Your task to perform on an android device: When is my next appointment? Image 0: 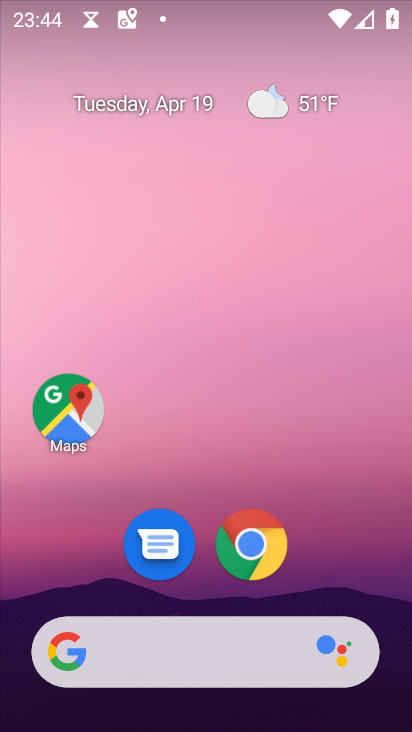
Step 0: drag from (336, 538) to (389, 156)
Your task to perform on an android device: When is my next appointment? Image 1: 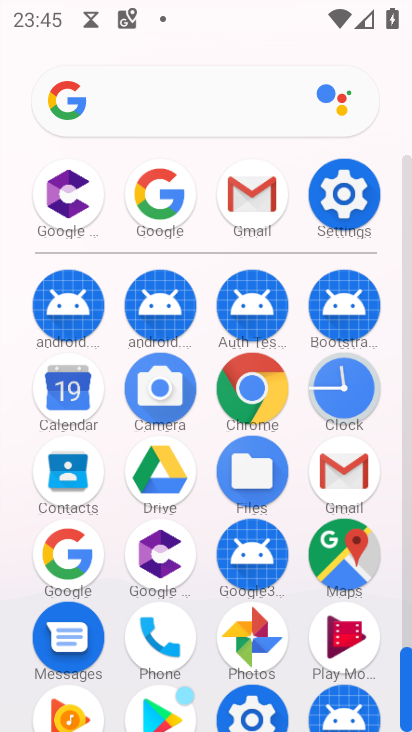
Step 1: click (65, 401)
Your task to perform on an android device: When is my next appointment? Image 2: 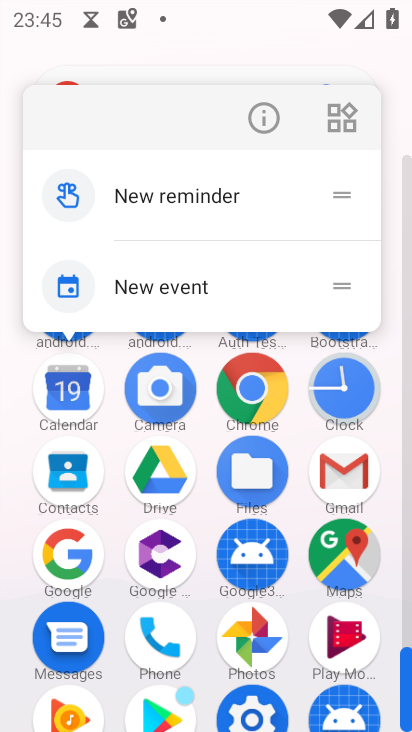
Step 2: click (65, 401)
Your task to perform on an android device: When is my next appointment? Image 3: 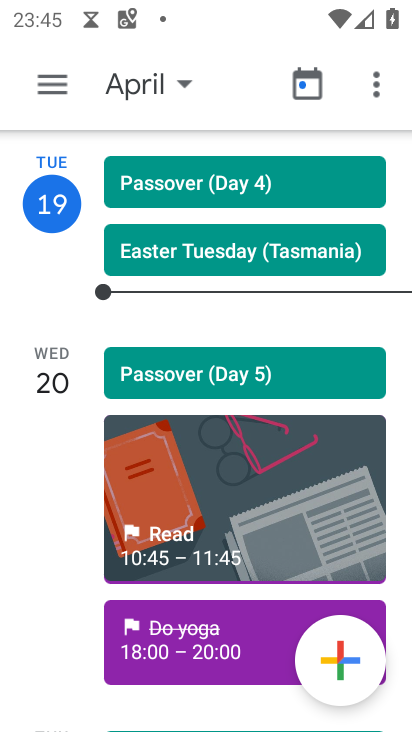
Step 3: click (148, 98)
Your task to perform on an android device: When is my next appointment? Image 4: 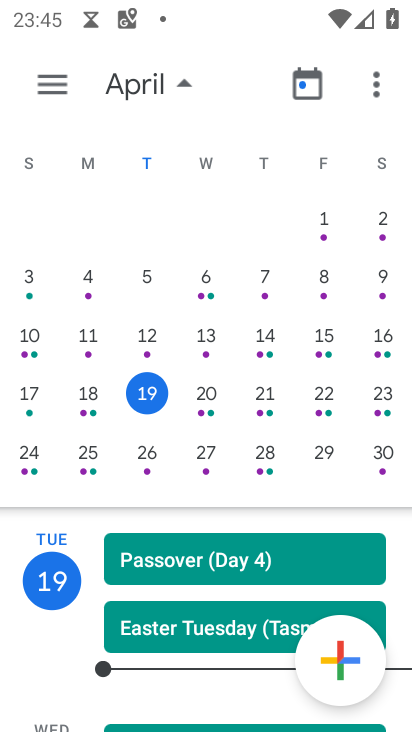
Step 4: click (147, 391)
Your task to perform on an android device: When is my next appointment? Image 5: 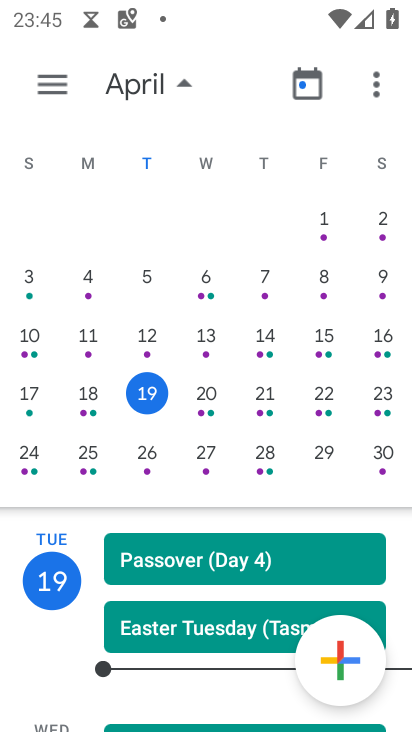
Step 5: click (204, 404)
Your task to perform on an android device: When is my next appointment? Image 6: 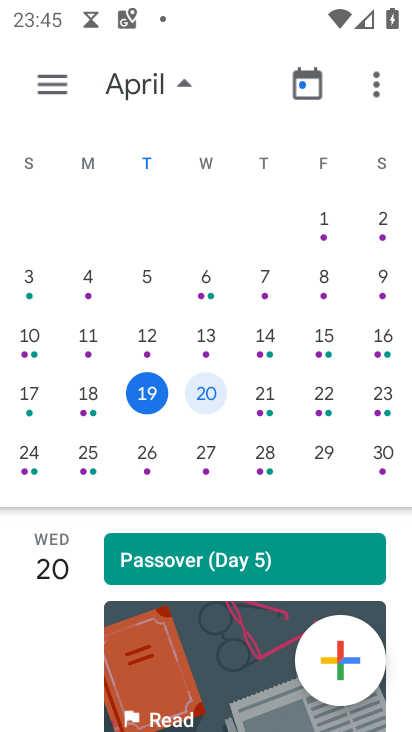
Step 6: task complete